Your task to perform on an android device: turn notification dots off Image 0: 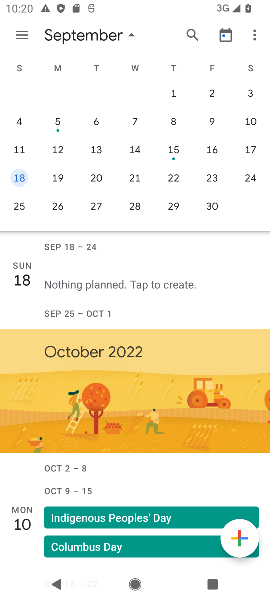
Step 0: press home button
Your task to perform on an android device: turn notification dots off Image 1: 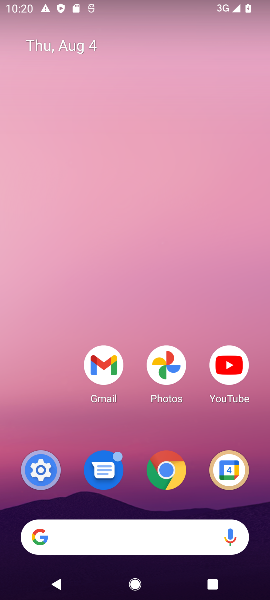
Step 1: click (32, 472)
Your task to perform on an android device: turn notification dots off Image 2: 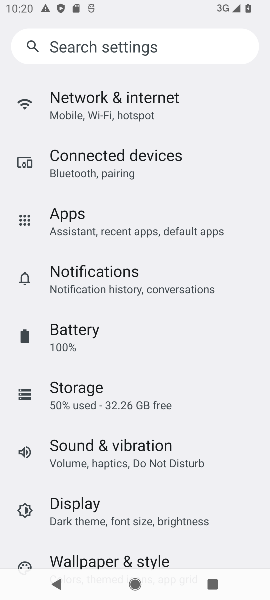
Step 2: click (147, 283)
Your task to perform on an android device: turn notification dots off Image 3: 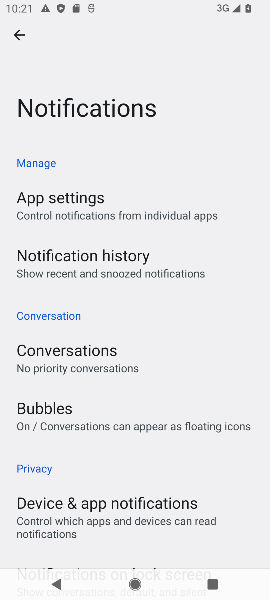
Step 3: drag from (78, 486) to (78, 363)
Your task to perform on an android device: turn notification dots off Image 4: 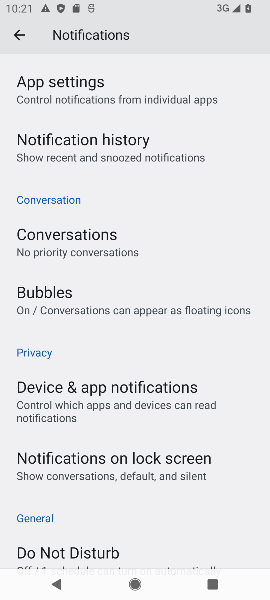
Step 4: drag from (97, 473) to (97, 249)
Your task to perform on an android device: turn notification dots off Image 5: 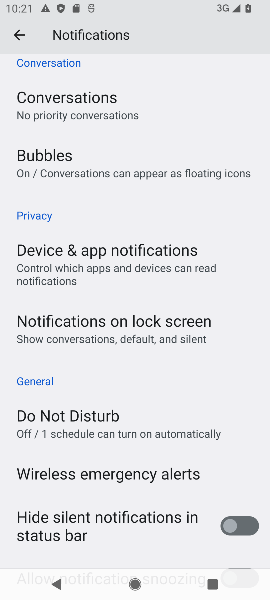
Step 5: drag from (134, 526) to (135, 257)
Your task to perform on an android device: turn notification dots off Image 6: 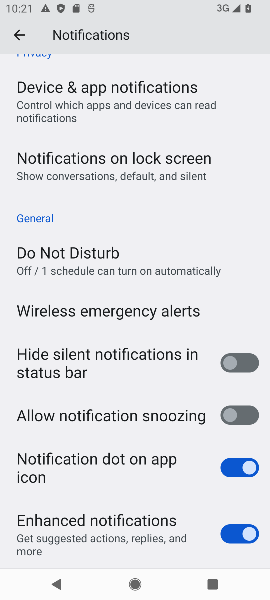
Step 6: click (242, 469)
Your task to perform on an android device: turn notification dots off Image 7: 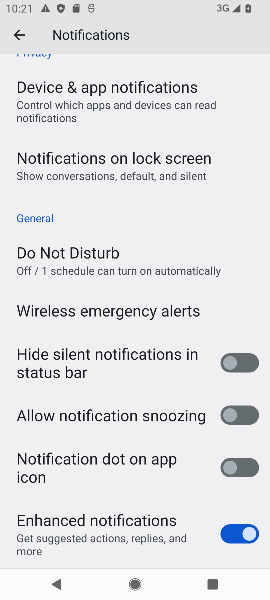
Step 7: task complete